Your task to perform on an android device: Go to accessibility settings Image 0: 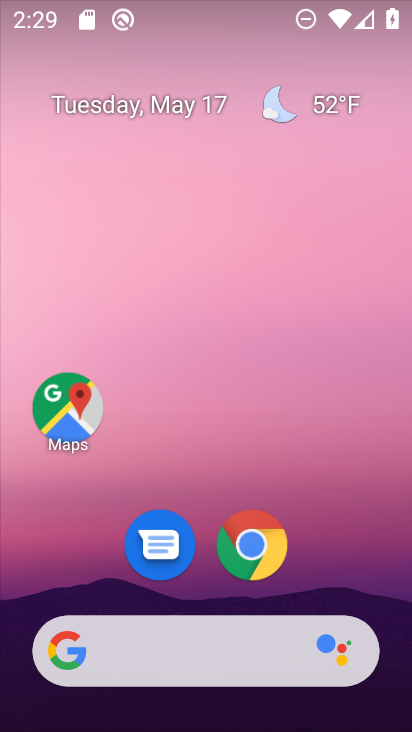
Step 0: drag from (380, 596) to (386, 122)
Your task to perform on an android device: Go to accessibility settings Image 1: 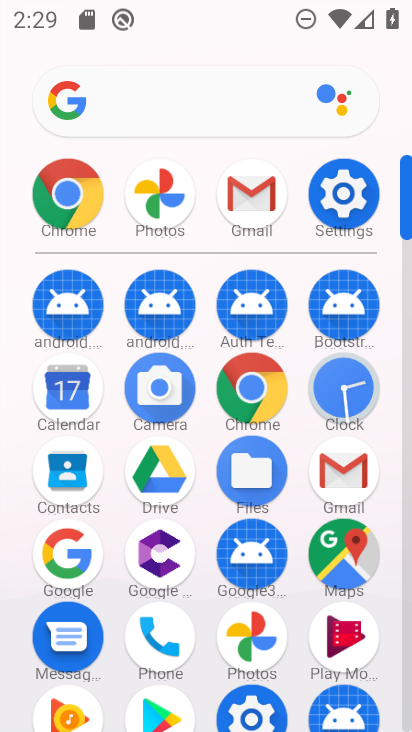
Step 1: click (359, 220)
Your task to perform on an android device: Go to accessibility settings Image 2: 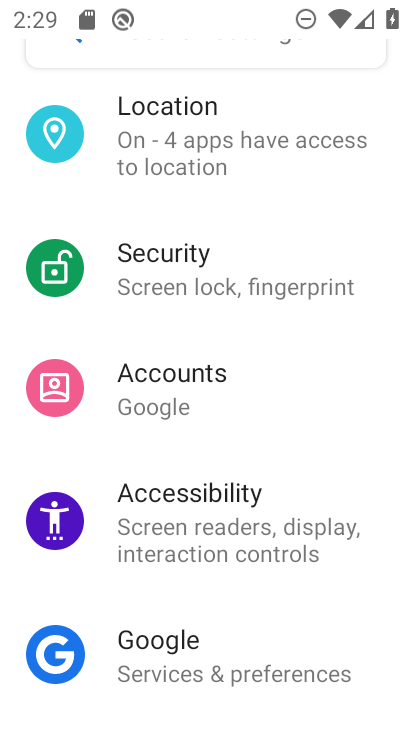
Step 2: drag from (358, 369) to (352, 425)
Your task to perform on an android device: Go to accessibility settings Image 3: 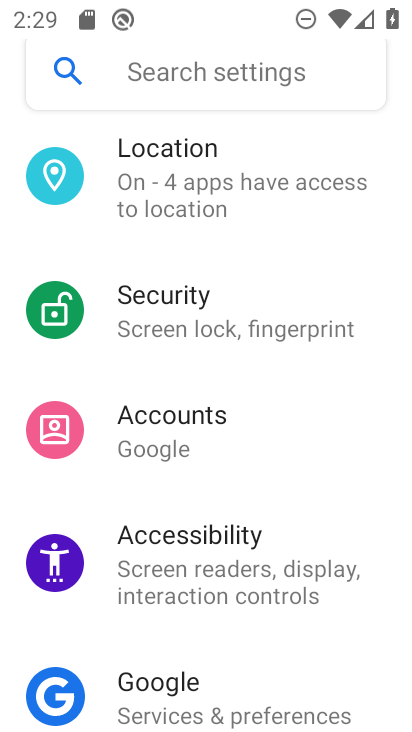
Step 3: drag from (370, 360) to (373, 432)
Your task to perform on an android device: Go to accessibility settings Image 4: 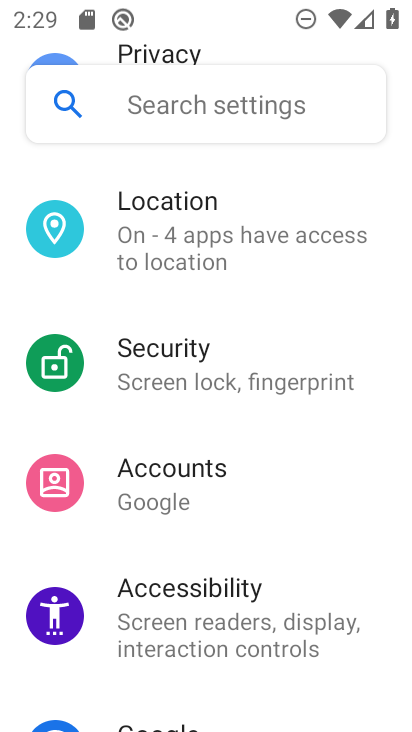
Step 4: drag from (382, 331) to (379, 434)
Your task to perform on an android device: Go to accessibility settings Image 5: 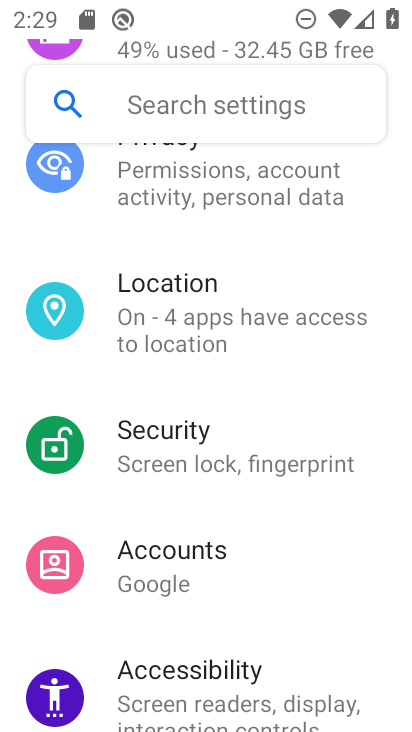
Step 5: drag from (362, 384) to (348, 487)
Your task to perform on an android device: Go to accessibility settings Image 6: 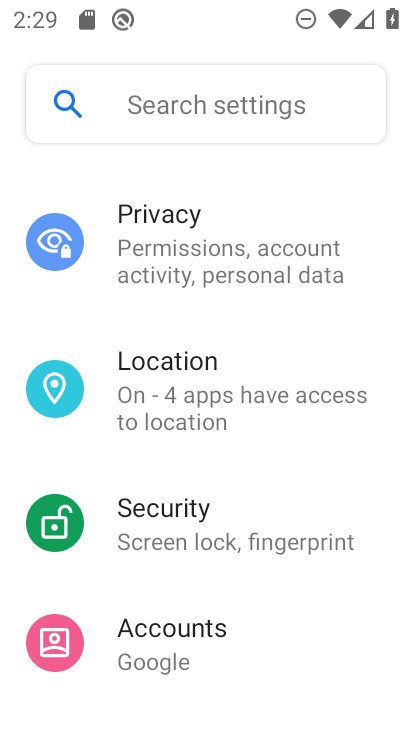
Step 6: drag from (371, 236) to (377, 380)
Your task to perform on an android device: Go to accessibility settings Image 7: 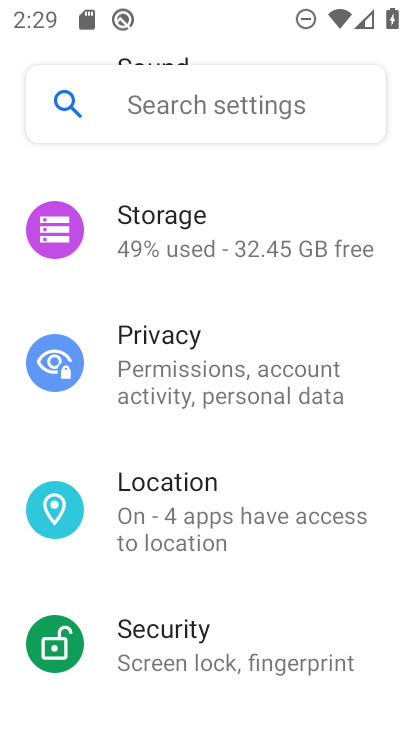
Step 7: drag from (340, 314) to (314, 535)
Your task to perform on an android device: Go to accessibility settings Image 8: 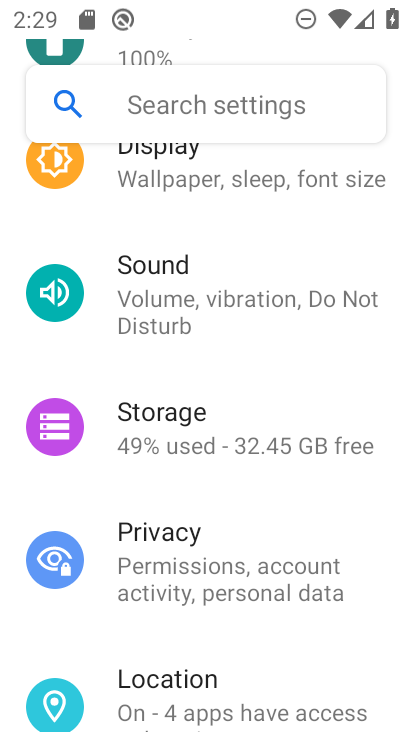
Step 8: drag from (318, 339) to (311, 472)
Your task to perform on an android device: Go to accessibility settings Image 9: 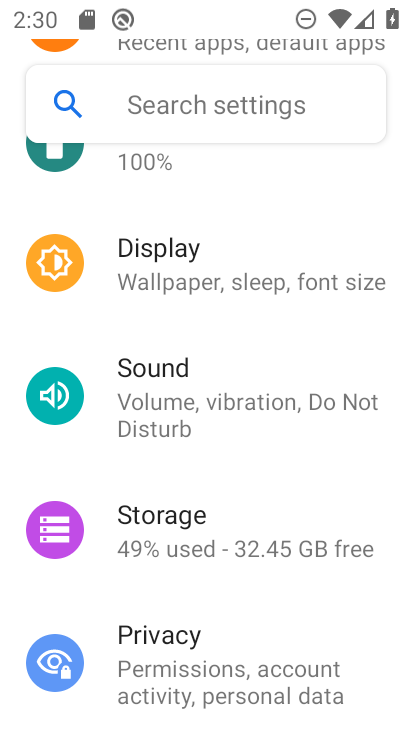
Step 9: drag from (324, 440) to (311, 586)
Your task to perform on an android device: Go to accessibility settings Image 10: 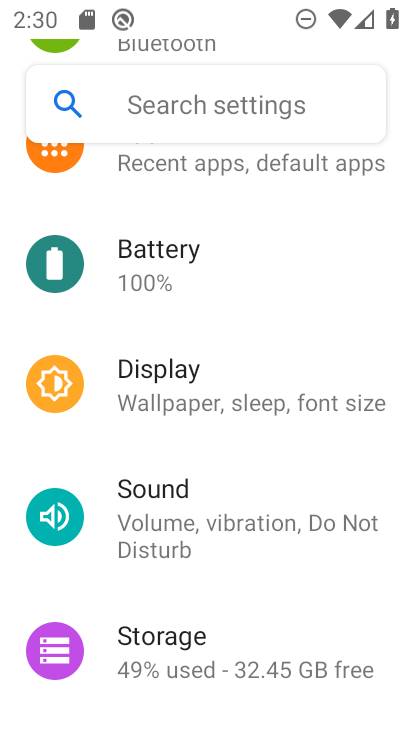
Step 10: drag from (307, 335) to (298, 490)
Your task to perform on an android device: Go to accessibility settings Image 11: 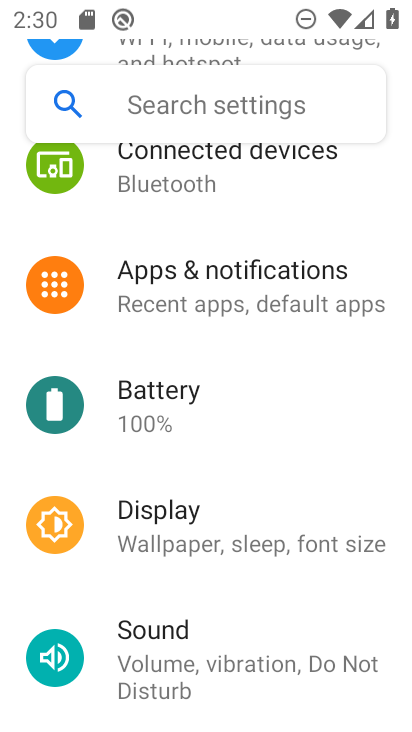
Step 11: drag from (324, 357) to (318, 532)
Your task to perform on an android device: Go to accessibility settings Image 12: 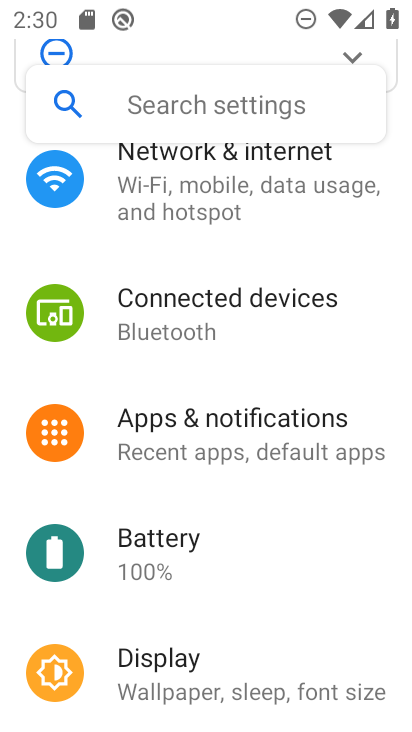
Step 12: drag from (325, 328) to (327, 497)
Your task to perform on an android device: Go to accessibility settings Image 13: 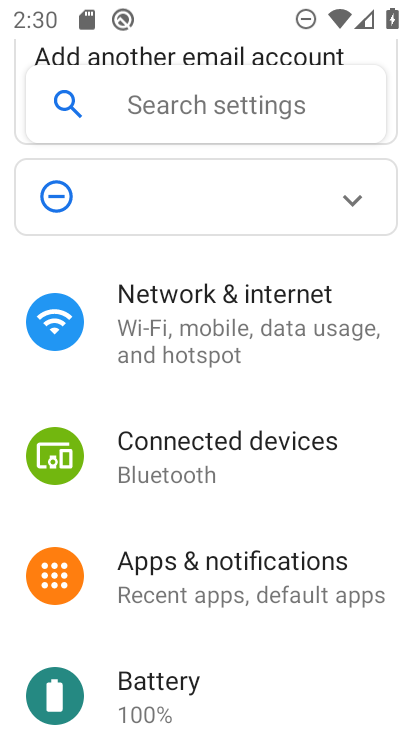
Step 13: drag from (313, 650) to (310, 497)
Your task to perform on an android device: Go to accessibility settings Image 14: 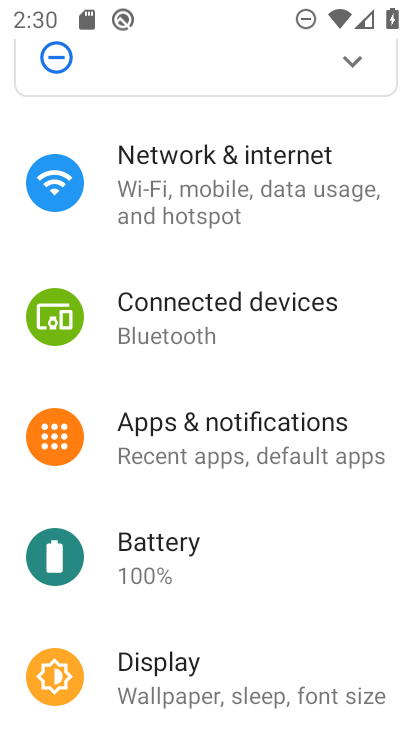
Step 14: drag from (309, 642) to (285, 515)
Your task to perform on an android device: Go to accessibility settings Image 15: 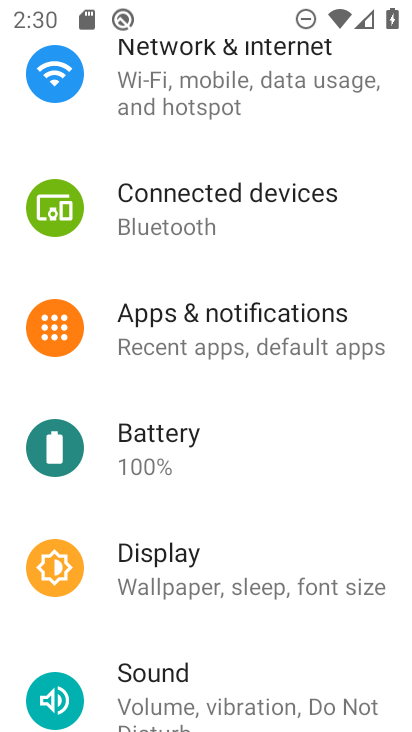
Step 15: drag from (280, 657) to (256, 505)
Your task to perform on an android device: Go to accessibility settings Image 16: 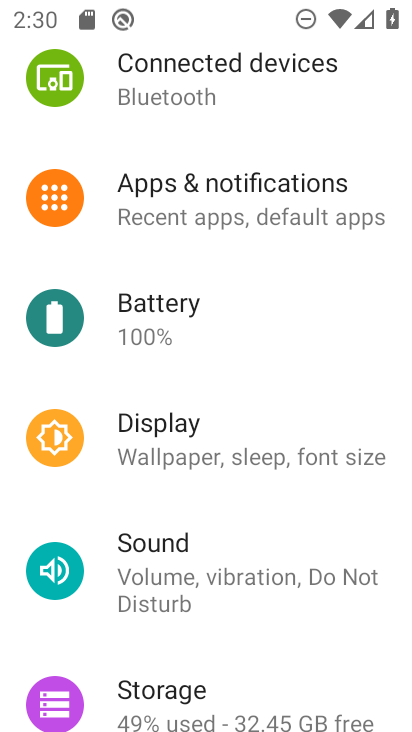
Step 16: drag from (261, 657) to (250, 525)
Your task to perform on an android device: Go to accessibility settings Image 17: 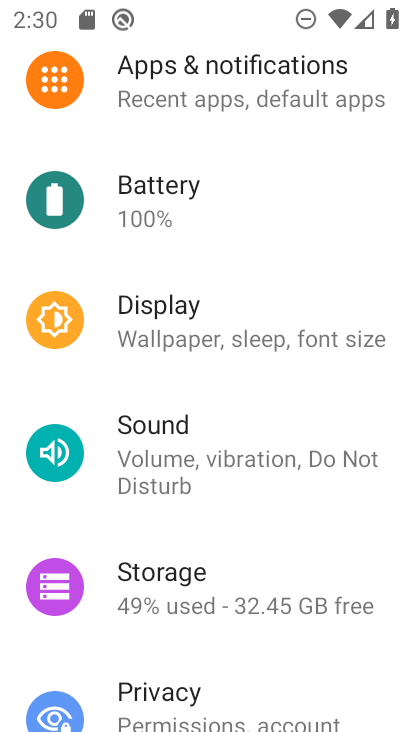
Step 17: drag from (280, 677) to (258, 534)
Your task to perform on an android device: Go to accessibility settings Image 18: 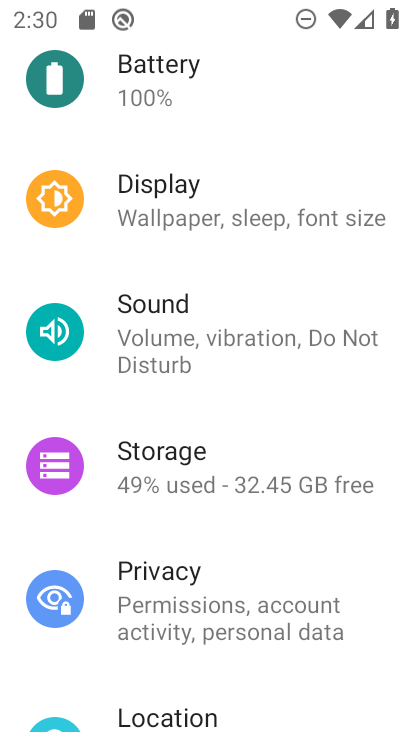
Step 18: drag from (360, 675) to (344, 506)
Your task to perform on an android device: Go to accessibility settings Image 19: 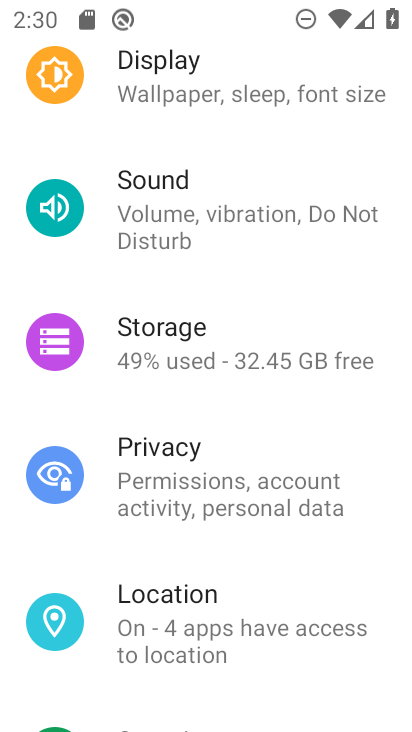
Step 19: drag from (331, 676) to (316, 525)
Your task to perform on an android device: Go to accessibility settings Image 20: 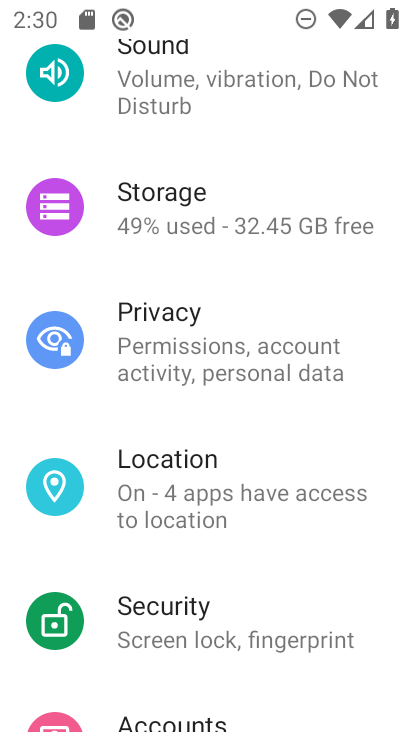
Step 20: drag from (327, 693) to (326, 532)
Your task to perform on an android device: Go to accessibility settings Image 21: 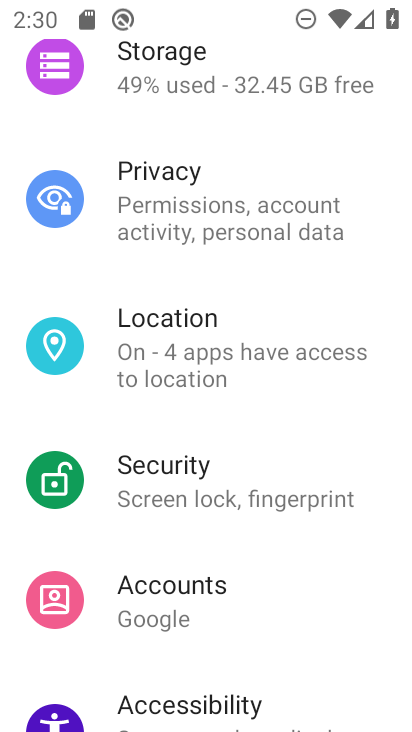
Step 21: drag from (305, 683) to (309, 524)
Your task to perform on an android device: Go to accessibility settings Image 22: 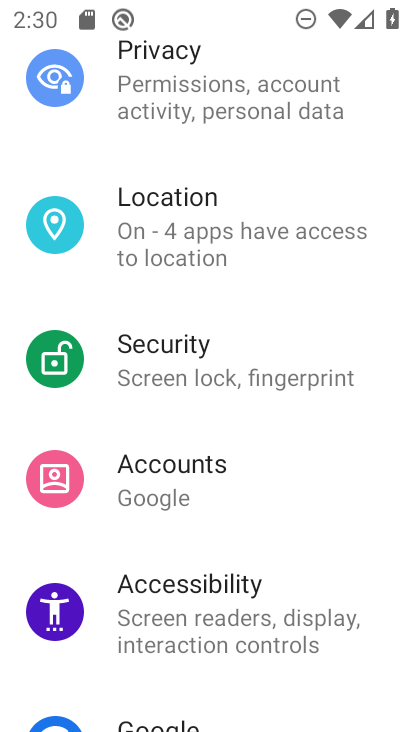
Step 22: click (242, 613)
Your task to perform on an android device: Go to accessibility settings Image 23: 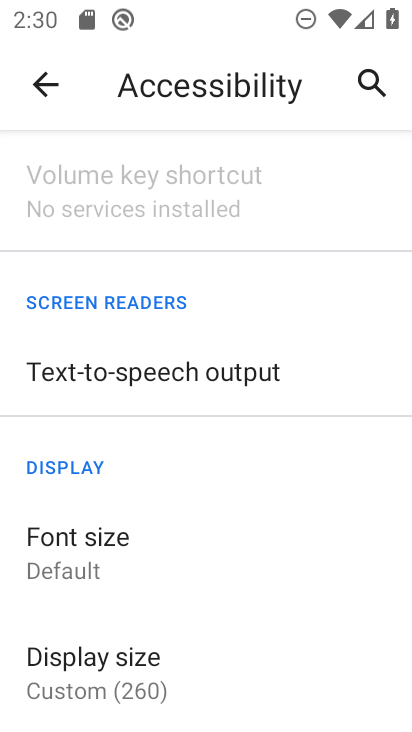
Step 23: task complete